Your task to perform on an android device: View the shopping cart on ebay. Search for apple airpods pro on ebay, select the first entry, add it to the cart, then select checkout. Image 0: 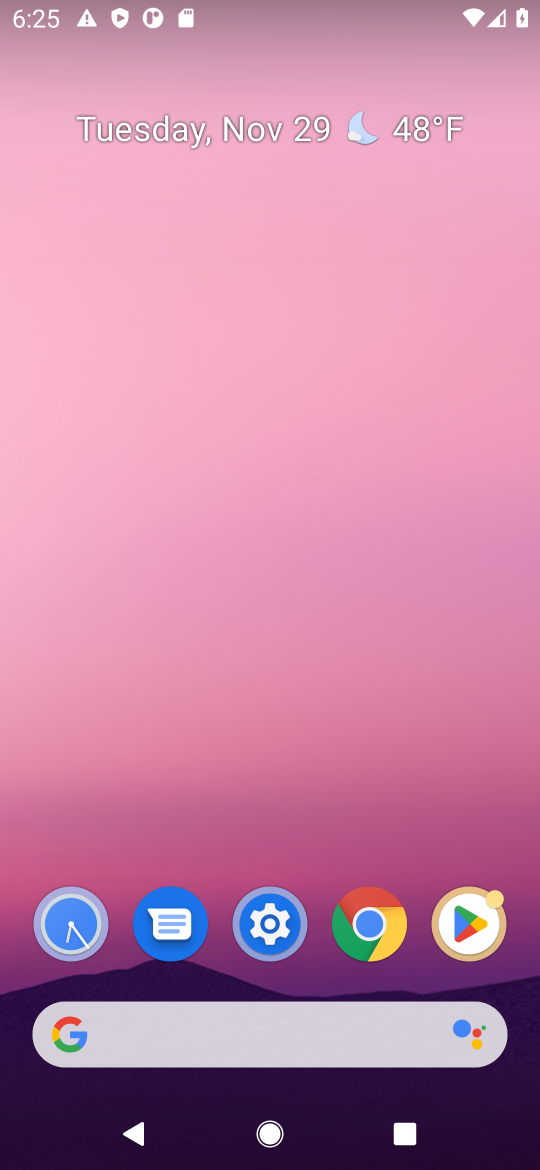
Step 0: click (301, 1032)
Your task to perform on an android device: View the shopping cart on ebay. Search for apple airpods pro on ebay, select the first entry, add it to the cart, then select checkout. Image 1: 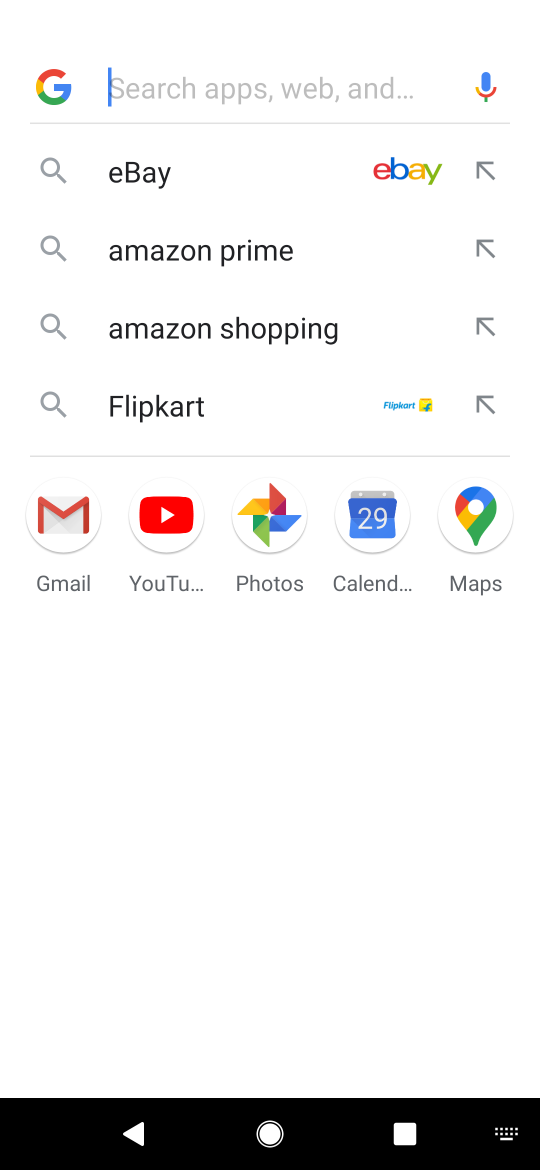
Step 1: click (118, 189)
Your task to perform on an android device: View the shopping cart on ebay. Search for apple airpods pro on ebay, select the first entry, add it to the cart, then select checkout. Image 2: 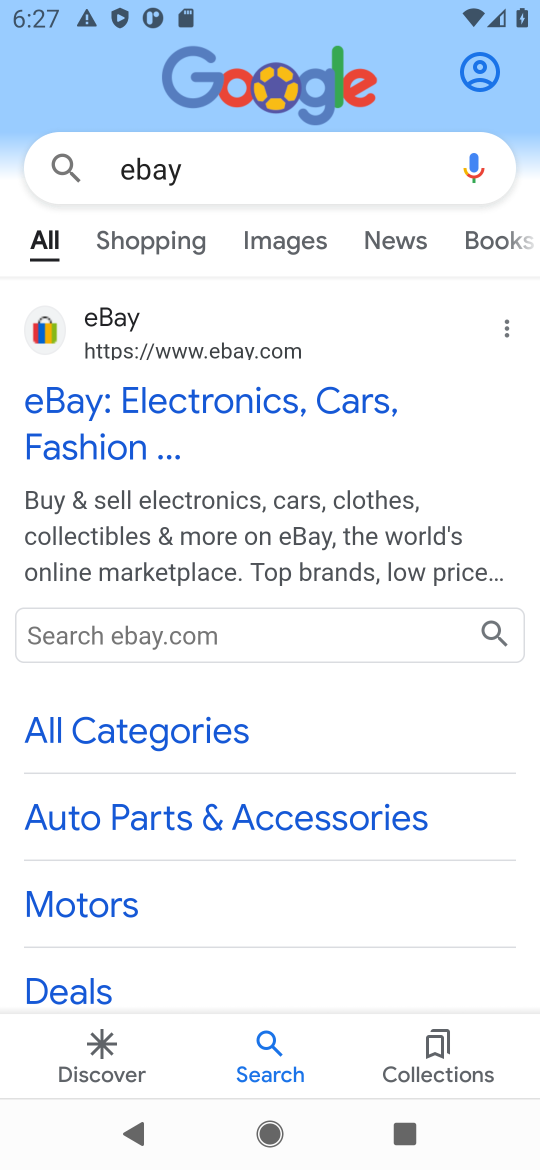
Step 2: click (12, 400)
Your task to perform on an android device: View the shopping cart on ebay. Search for apple airpods pro on ebay, select the first entry, add it to the cart, then select checkout. Image 3: 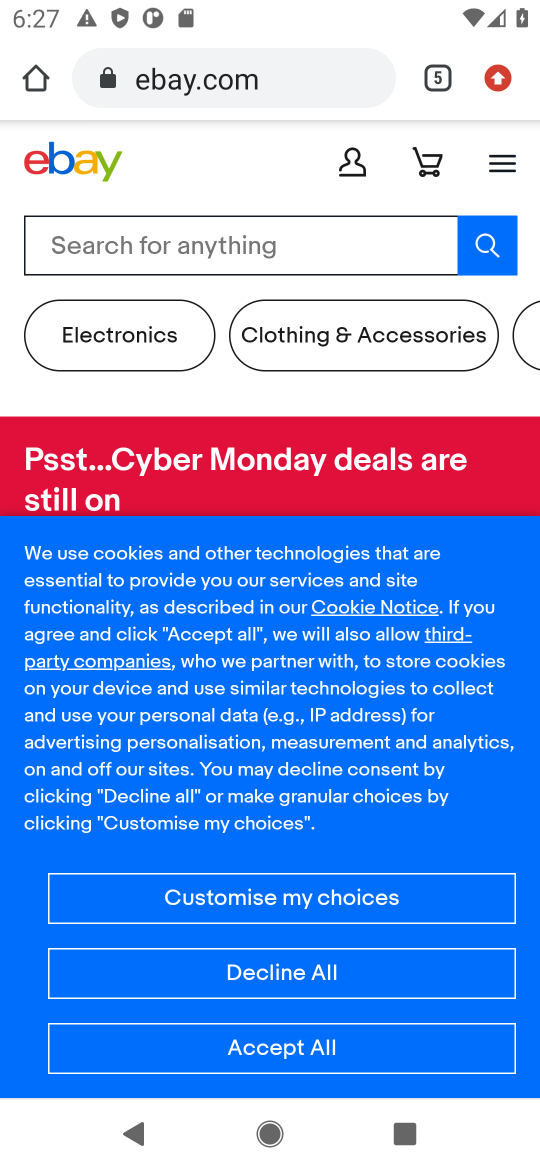
Step 3: click (51, 239)
Your task to perform on an android device: View the shopping cart on ebay. Search for apple airpods pro on ebay, select the first entry, add it to the cart, then select checkout. Image 4: 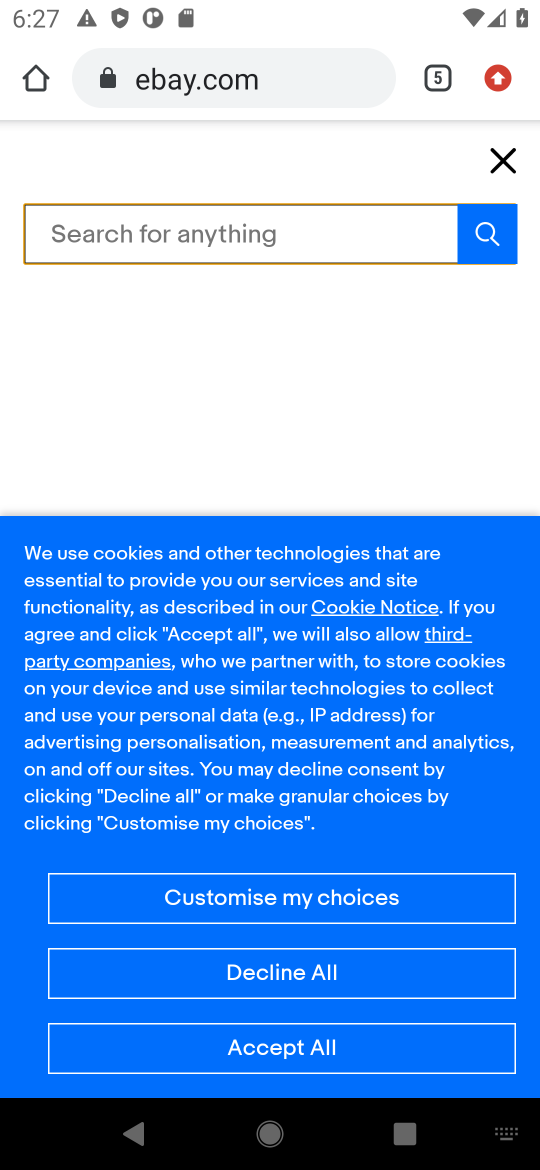
Step 4: type "apple airpods"
Your task to perform on an android device: View the shopping cart on ebay. Search for apple airpods pro on ebay, select the first entry, add it to the cart, then select checkout. Image 5: 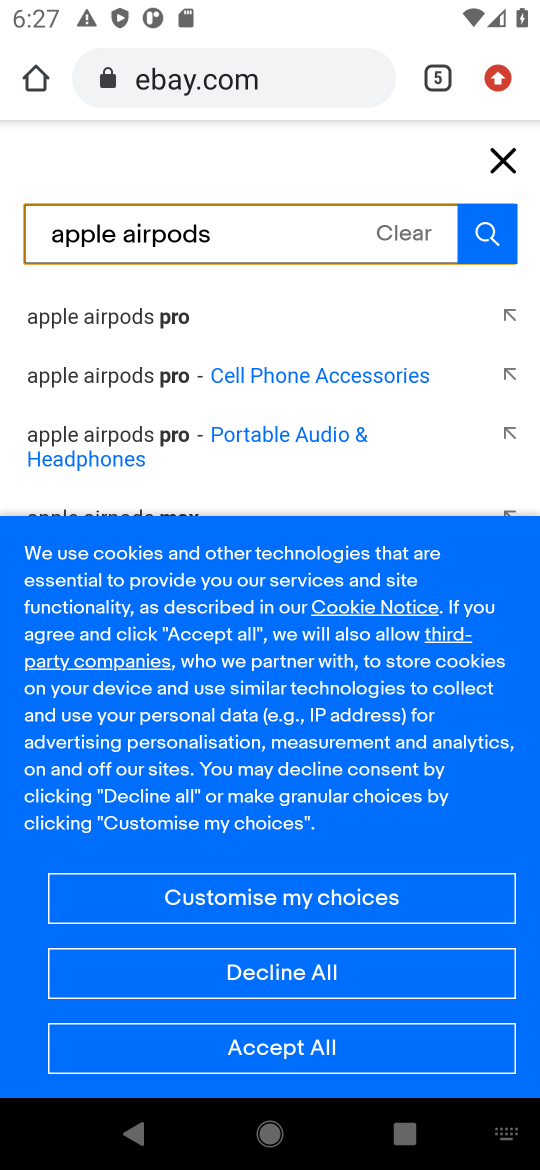
Step 5: click (71, 304)
Your task to perform on an android device: View the shopping cart on ebay. Search for apple airpods pro on ebay, select the first entry, add it to the cart, then select checkout. Image 6: 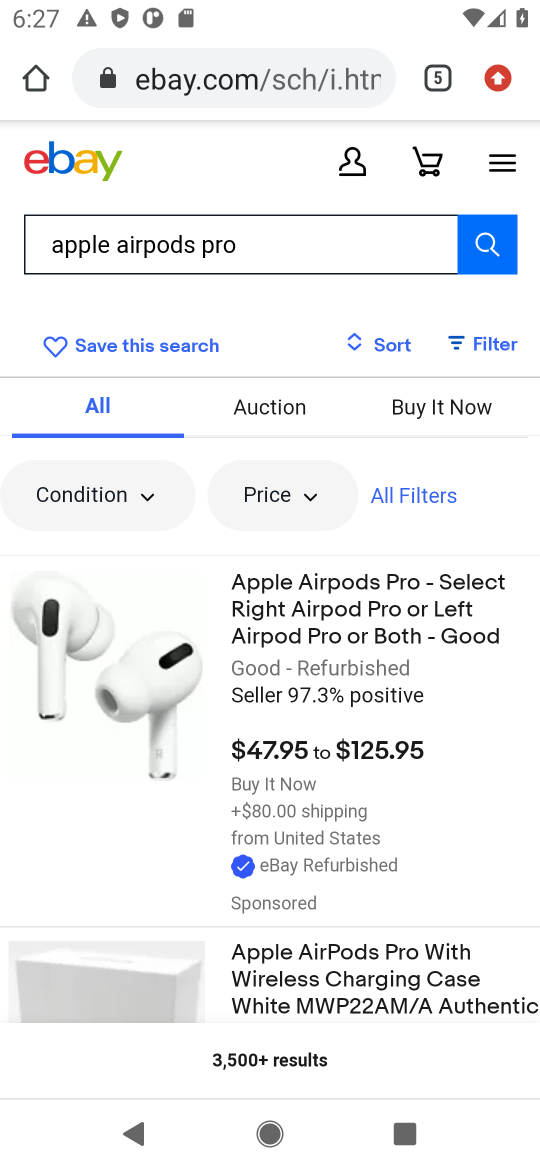
Step 6: click (472, 248)
Your task to perform on an android device: View the shopping cart on ebay. Search for apple airpods pro on ebay, select the first entry, add it to the cart, then select checkout. Image 7: 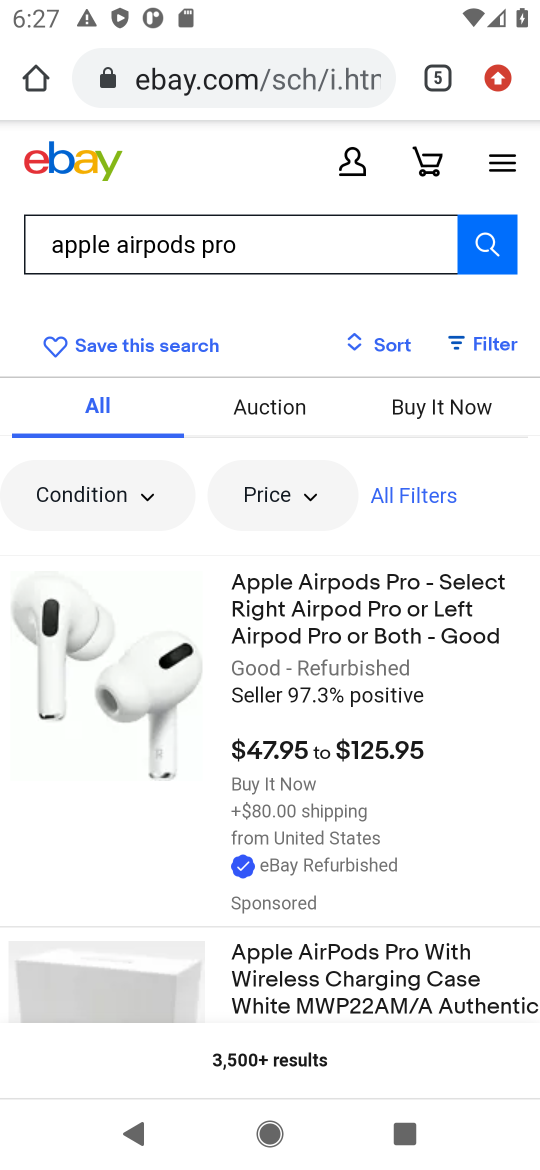
Step 7: click (284, 629)
Your task to perform on an android device: View the shopping cart on ebay. Search for apple airpods pro on ebay, select the first entry, add it to the cart, then select checkout. Image 8: 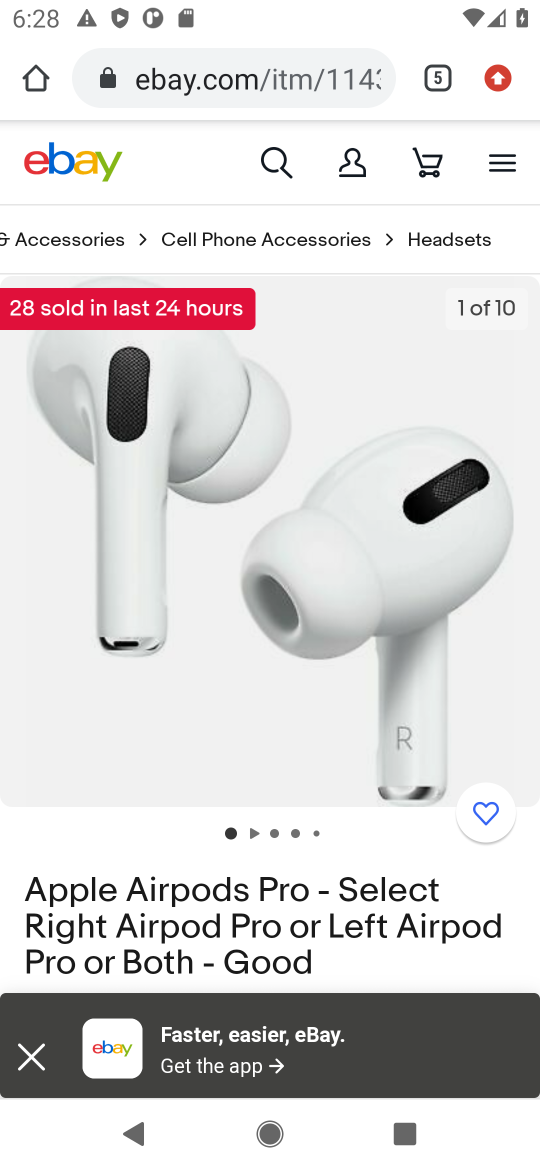
Step 8: click (38, 1069)
Your task to perform on an android device: View the shopping cart on ebay. Search for apple airpods pro on ebay, select the first entry, add it to the cart, then select checkout. Image 9: 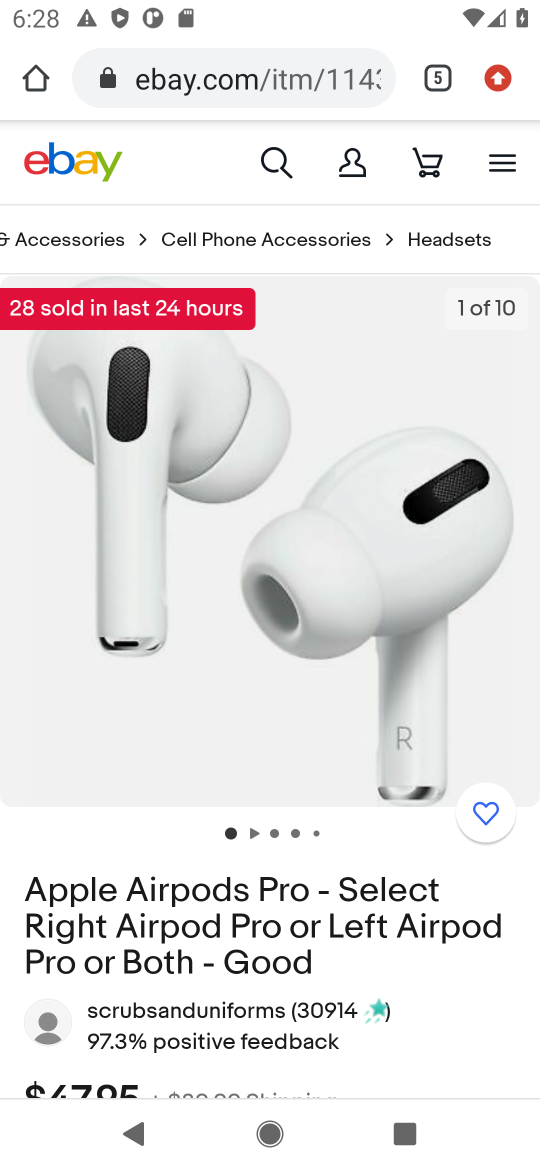
Step 9: drag from (337, 1015) to (281, 678)
Your task to perform on an android device: View the shopping cart on ebay. Search for apple airpods pro on ebay, select the first entry, add it to the cart, then select checkout. Image 10: 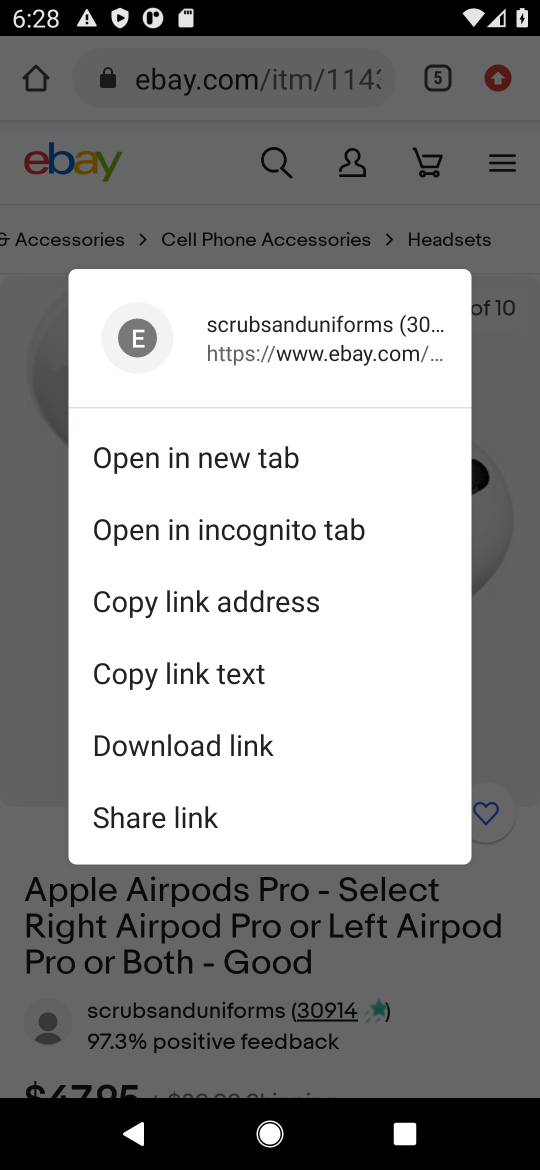
Step 10: click (454, 1033)
Your task to perform on an android device: View the shopping cart on ebay. Search for apple airpods pro on ebay, select the first entry, add it to the cart, then select checkout. Image 11: 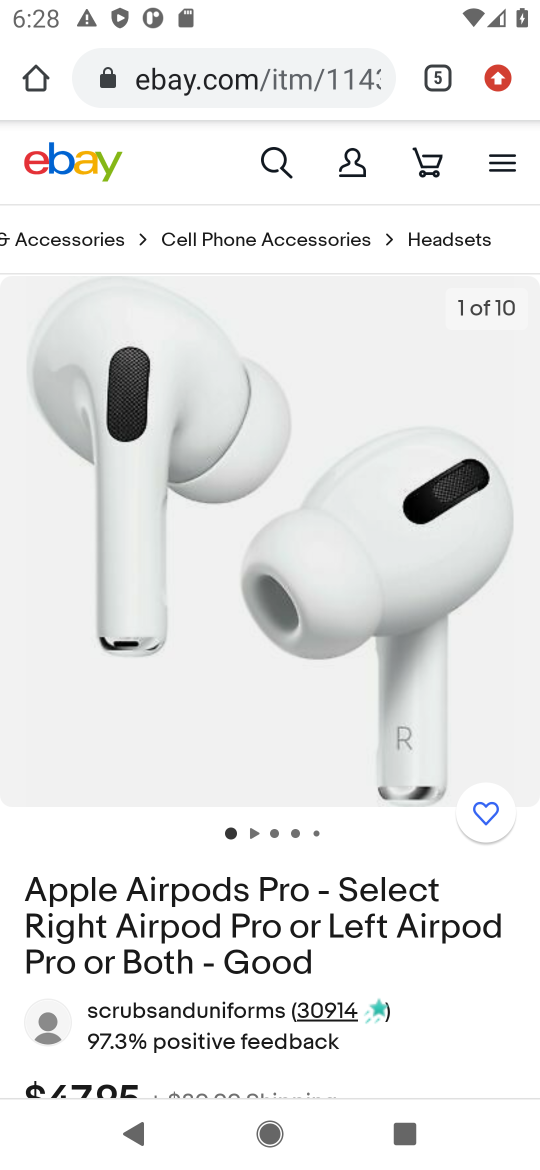
Step 11: task complete